Your task to perform on an android device: Search for vegetarian restaurants on Maps Image 0: 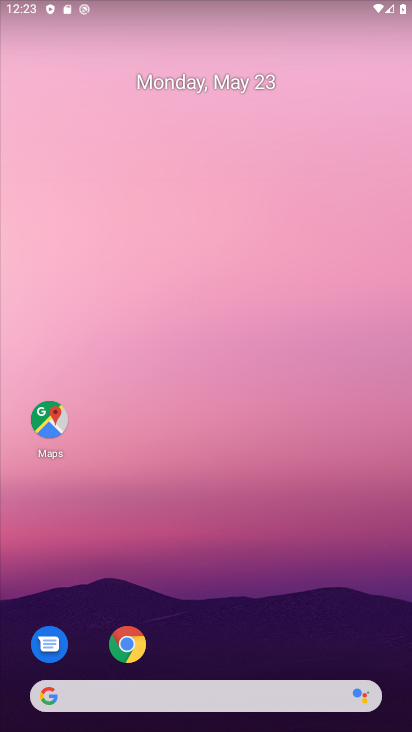
Step 0: click (256, 614)
Your task to perform on an android device: Search for vegetarian restaurants on Maps Image 1: 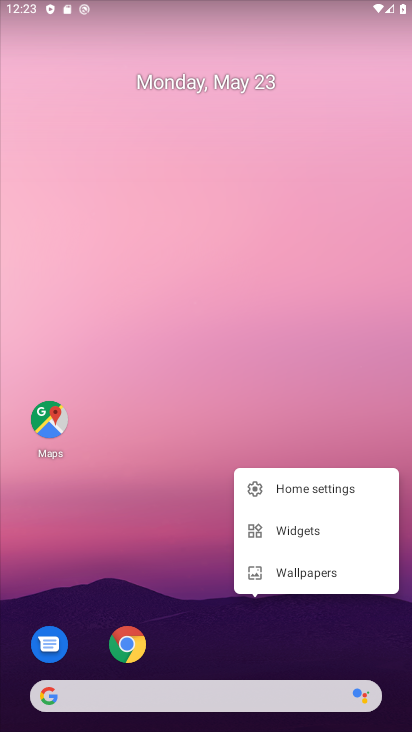
Step 1: click (45, 413)
Your task to perform on an android device: Search for vegetarian restaurants on Maps Image 2: 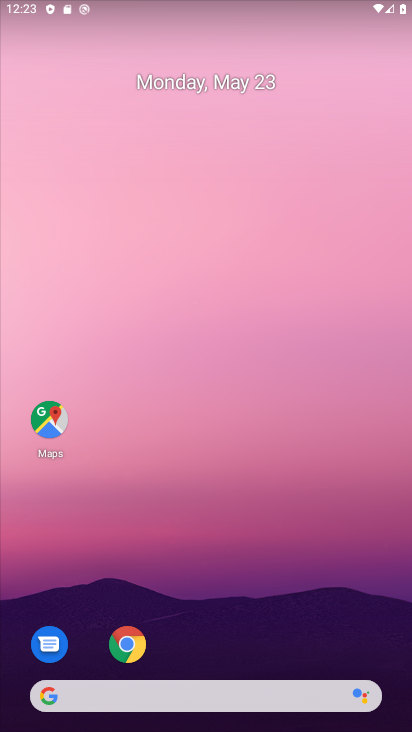
Step 2: click (45, 413)
Your task to perform on an android device: Search for vegetarian restaurants on Maps Image 3: 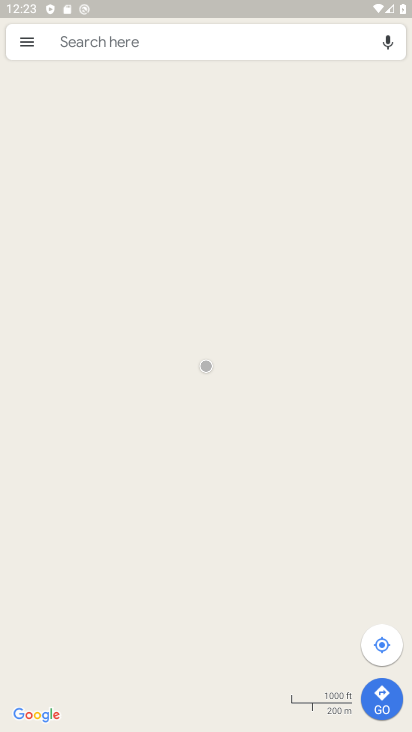
Step 3: click (275, 46)
Your task to perform on an android device: Search for vegetarian restaurants on Maps Image 4: 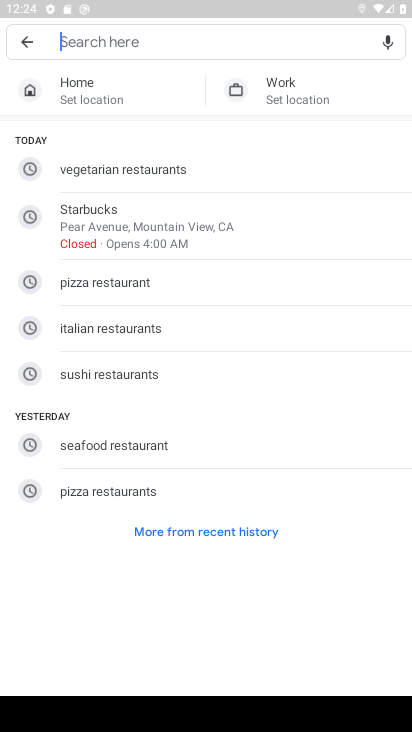
Step 4: type "vege"
Your task to perform on an android device: Search for vegetarian restaurants on Maps Image 5: 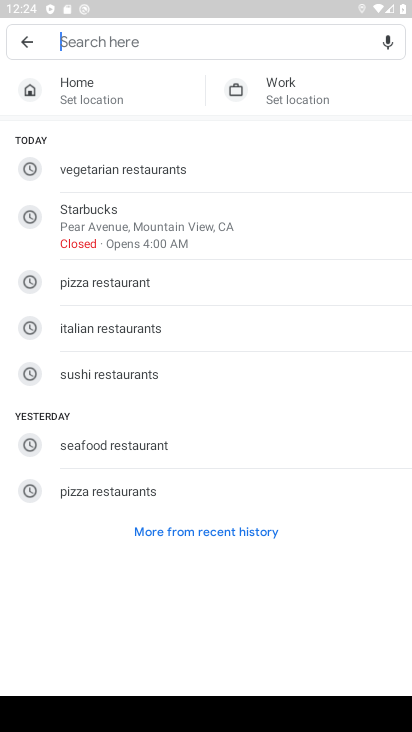
Step 5: click (147, 177)
Your task to perform on an android device: Search for vegetarian restaurants on Maps Image 6: 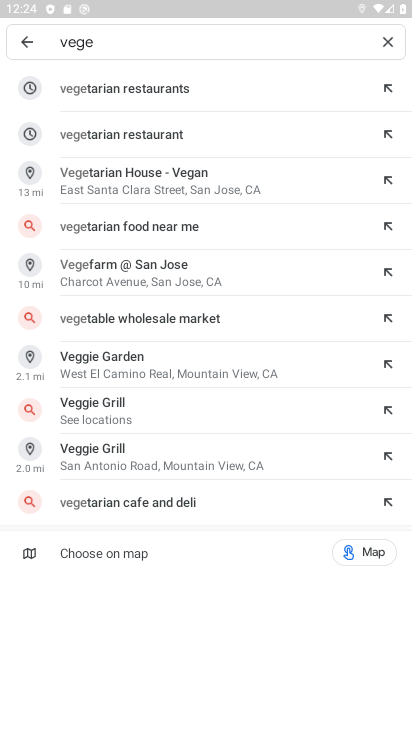
Step 6: click (173, 93)
Your task to perform on an android device: Search for vegetarian restaurants on Maps Image 7: 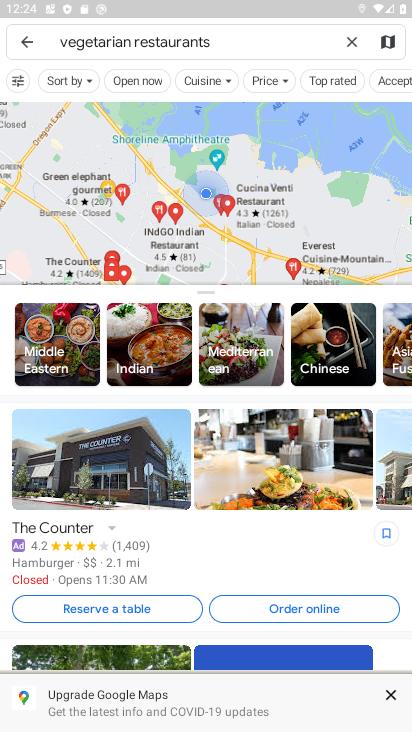
Step 7: task complete